Your task to perform on an android device: turn on the 12-hour format for clock Image 0: 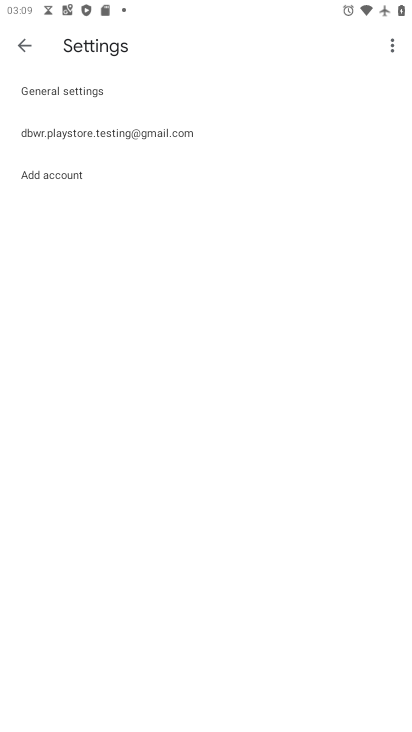
Step 0: press home button
Your task to perform on an android device: turn on the 12-hour format for clock Image 1: 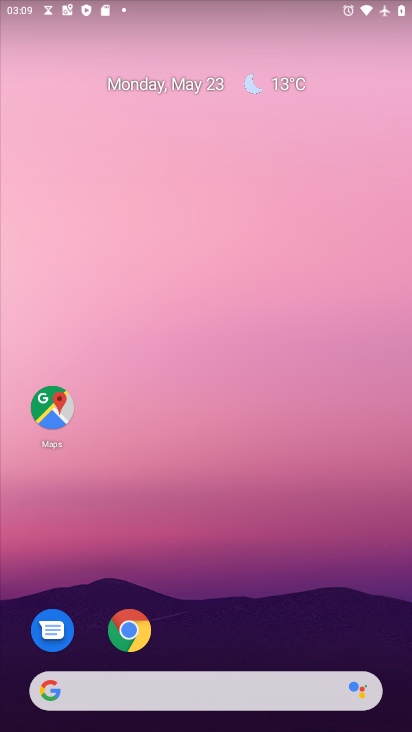
Step 1: drag from (287, 593) to (129, 84)
Your task to perform on an android device: turn on the 12-hour format for clock Image 2: 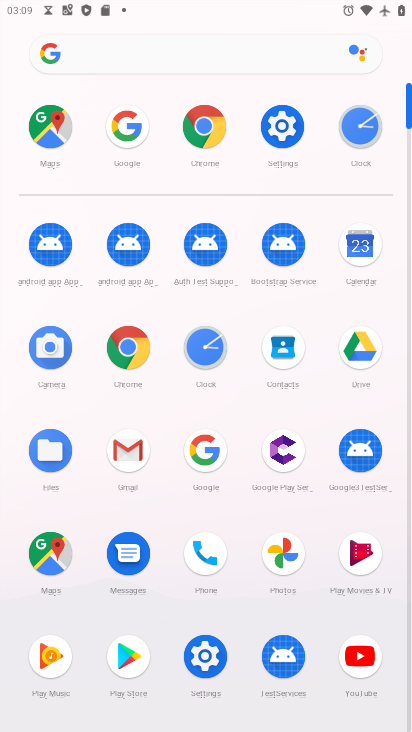
Step 2: click (229, 339)
Your task to perform on an android device: turn on the 12-hour format for clock Image 3: 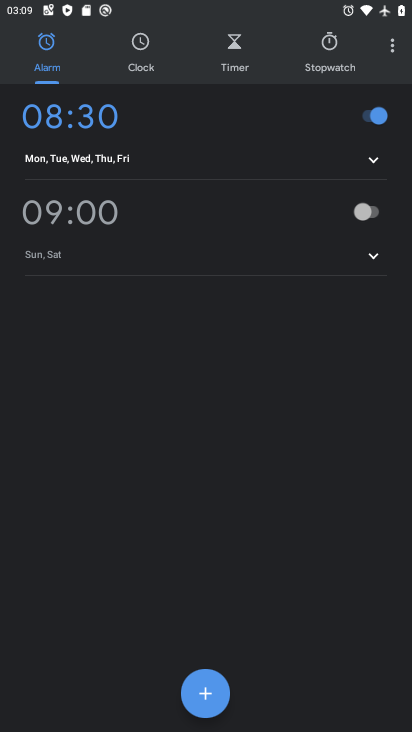
Step 3: click (384, 47)
Your task to perform on an android device: turn on the 12-hour format for clock Image 4: 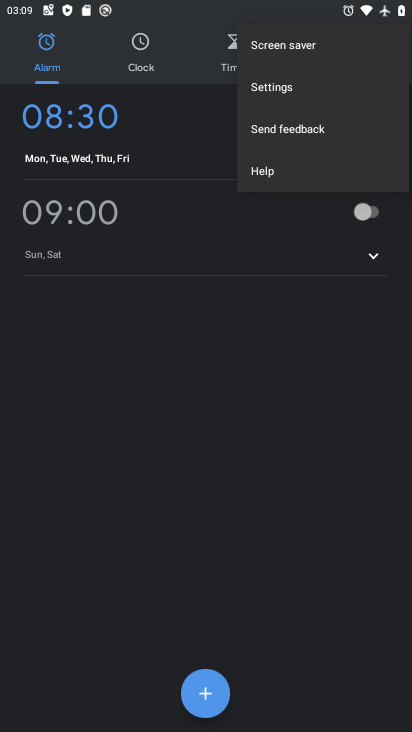
Step 4: click (281, 96)
Your task to perform on an android device: turn on the 12-hour format for clock Image 5: 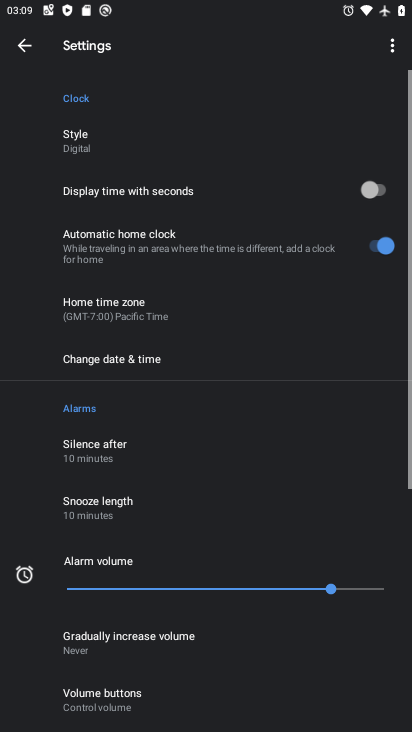
Step 5: drag from (271, 665) to (281, 350)
Your task to perform on an android device: turn on the 12-hour format for clock Image 6: 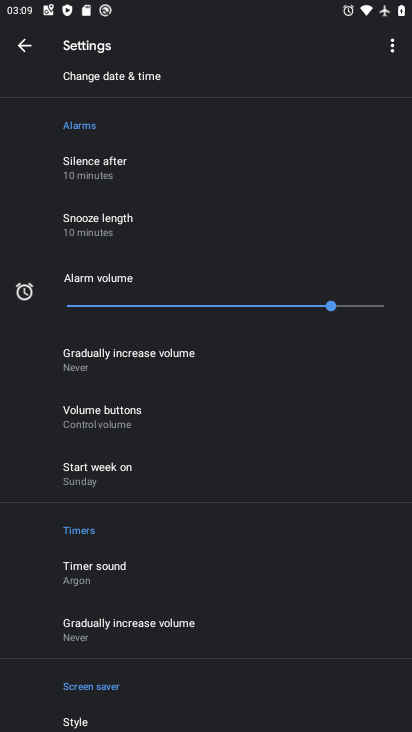
Step 6: click (146, 90)
Your task to perform on an android device: turn on the 12-hour format for clock Image 7: 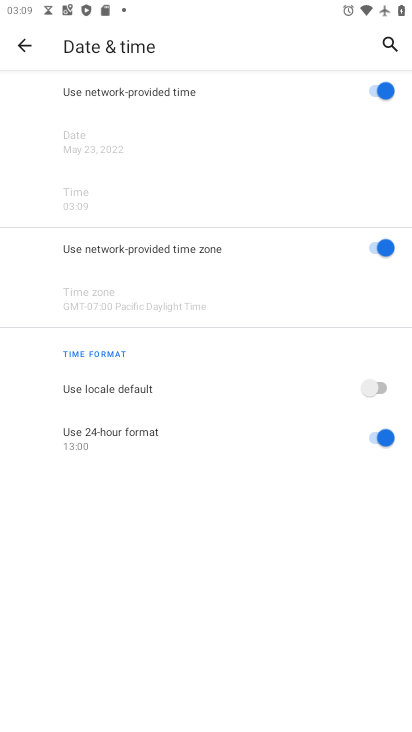
Step 7: click (369, 390)
Your task to perform on an android device: turn on the 12-hour format for clock Image 8: 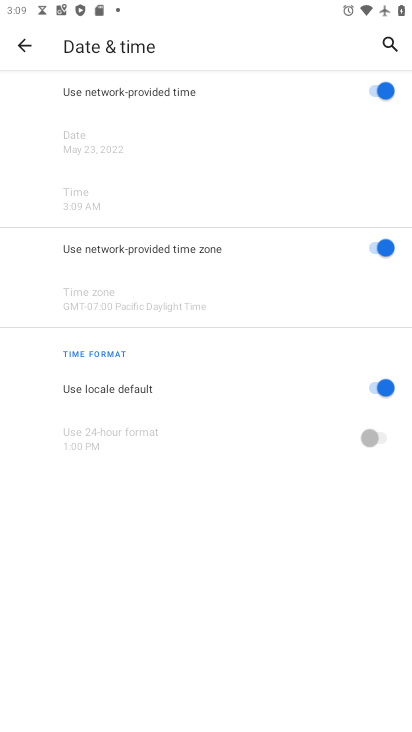
Step 8: task complete